Your task to perform on an android device: Search for pizza restaurants on Maps Image 0: 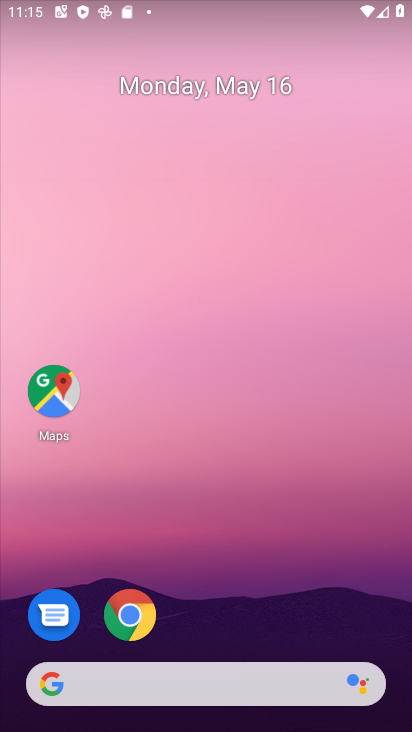
Step 0: drag from (200, 726) to (208, 37)
Your task to perform on an android device: Search for pizza restaurants on Maps Image 1: 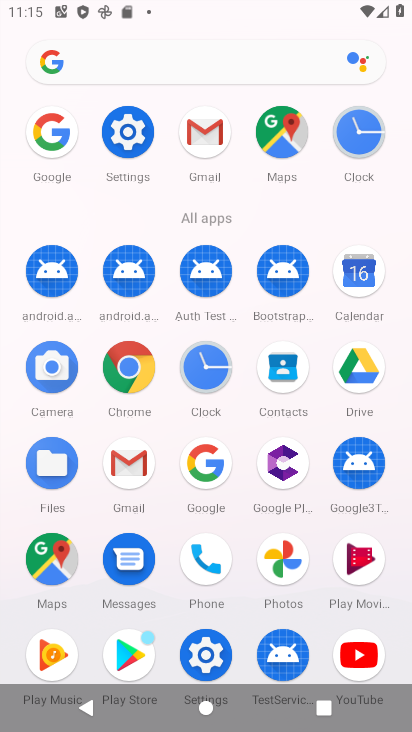
Step 1: click (41, 557)
Your task to perform on an android device: Search for pizza restaurants on Maps Image 2: 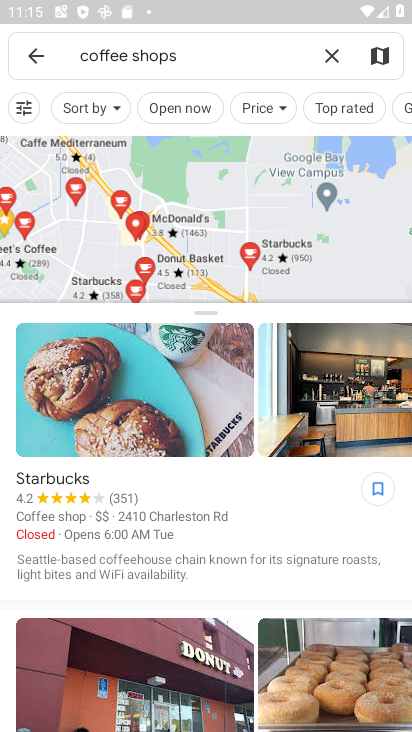
Step 2: click (329, 51)
Your task to perform on an android device: Search for pizza restaurants on Maps Image 3: 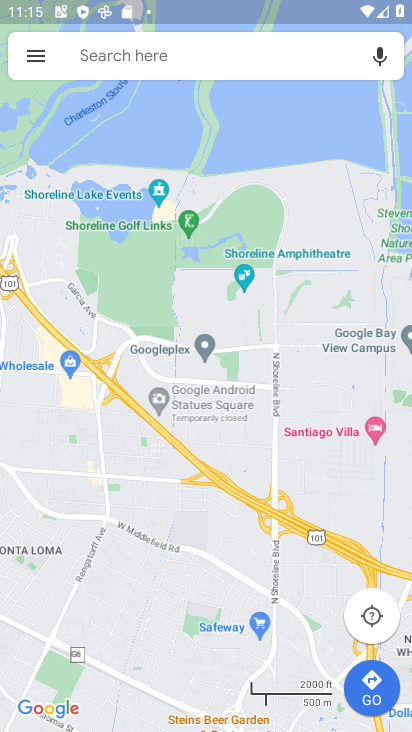
Step 3: click (173, 51)
Your task to perform on an android device: Search for pizza restaurants on Maps Image 4: 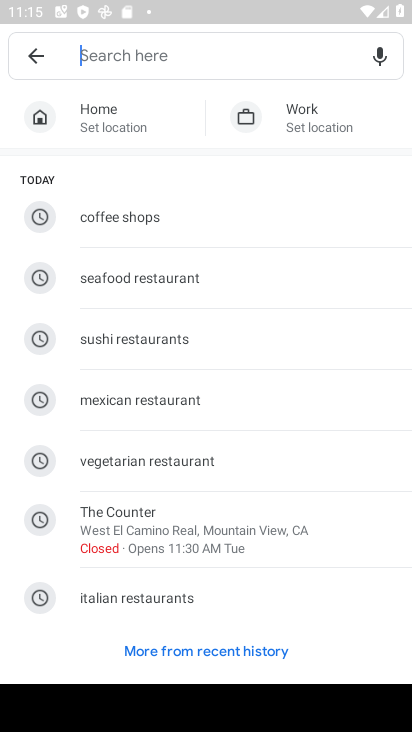
Step 4: type "pizza restaurants"
Your task to perform on an android device: Search for pizza restaurants on Maps Image 5: 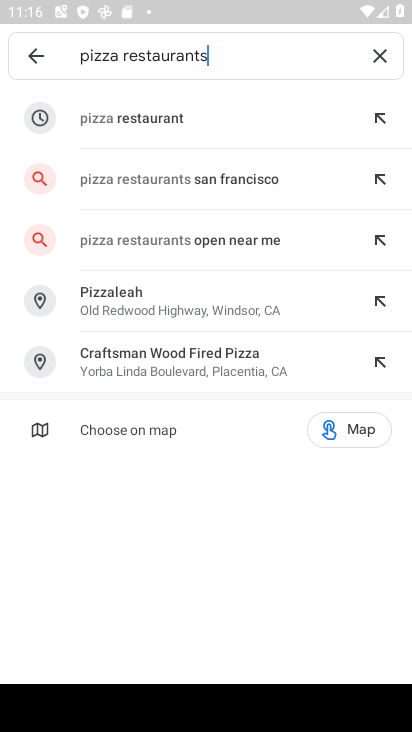
Step 5: click (158, 115)
Your task to perform on an android device: Search for pizza restaurants on Maps Image 6: 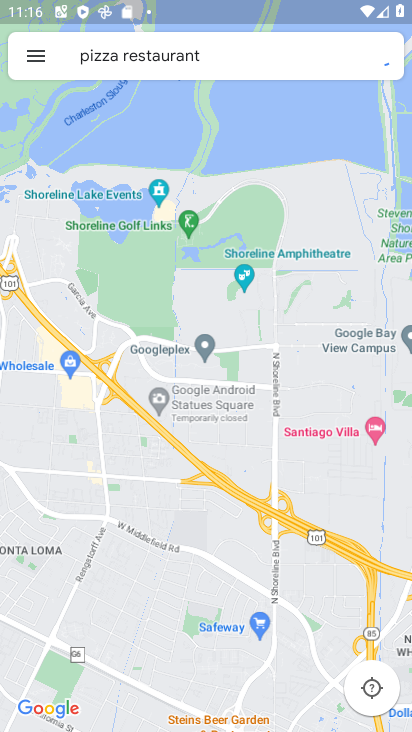
Step 6: task complete